Your task to perform on an android device: turn pop-ups off in chrome Image 0: 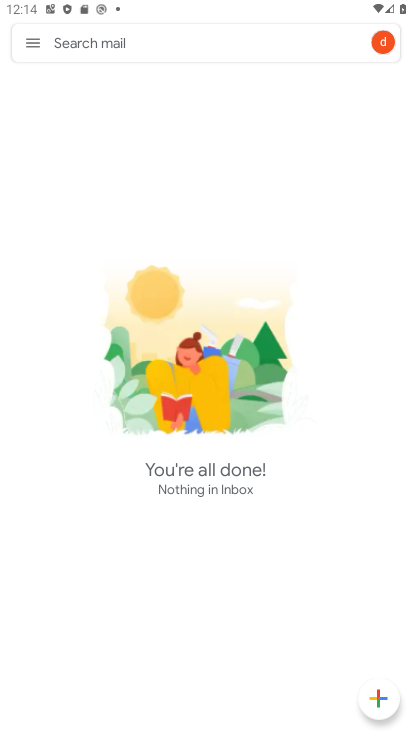
Step 0: press home button
Your task to perform on an android device: turn pop-ups off in chrome Image 1: 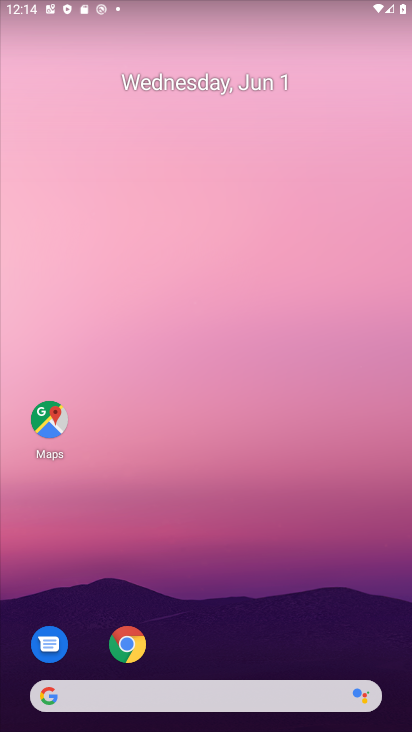
Step 1: drag from (360, 601) to (324, 117)
Your task to perform on an android device: turn pop-ups off in chrome Image 2: 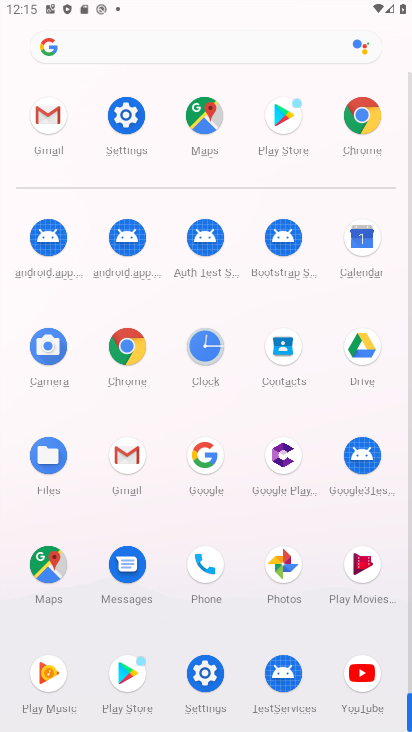
Step 2: click (117, 357)
Your task to perform on an android device: turn pop-ups off in chrome Image 3: 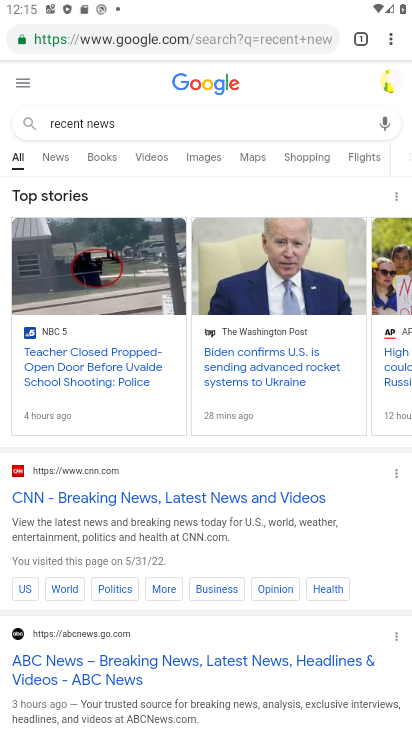
Step 3: drag from (389, 40) to (266, 429)
Your task to perform on an android device: turn pop-ups off in chrome Image 4: 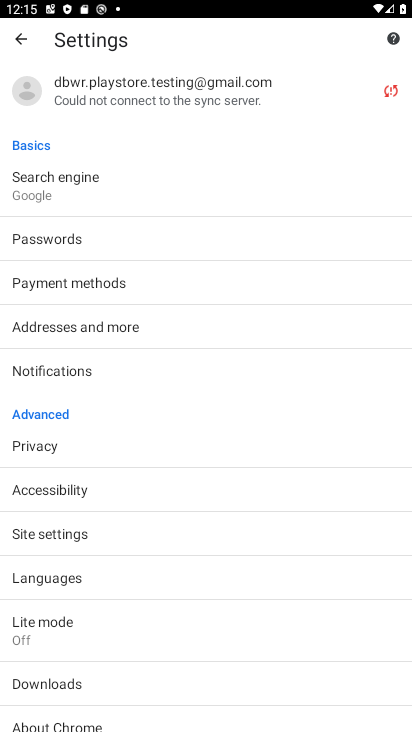
Step 4: click (128, 545)
Your task to perform on an android device: turn pop-ups off in chrome Image 5: 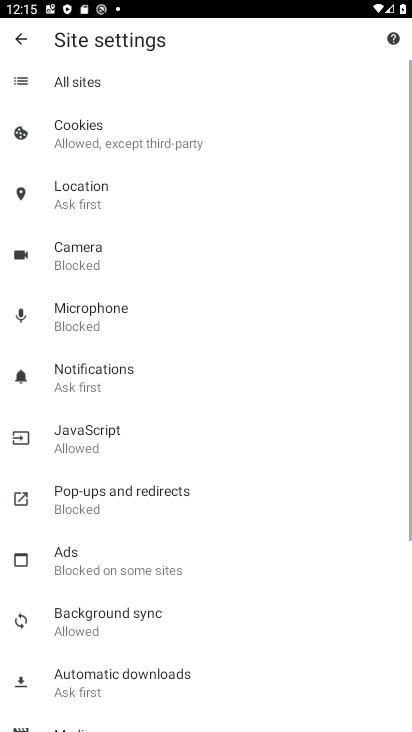
Step 5: drag from (244, 637) to (268, 191)
Your task to perform on an android device: turn pop-ups off in chrome Image 6: 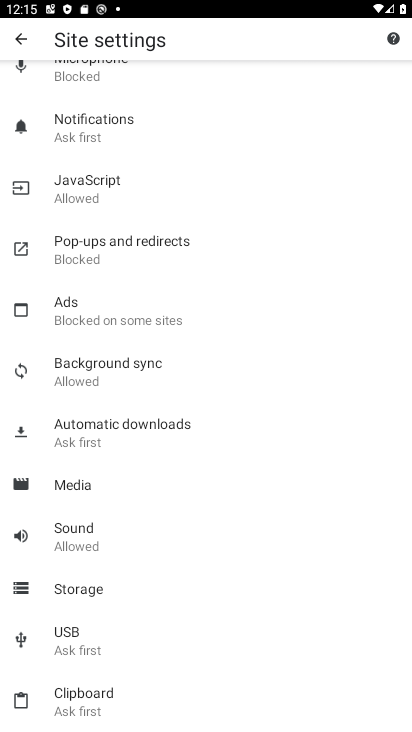
Step 6: click (185, 237)
Your task to perform on an android device: turn pop-ups off in chrome Image 7: 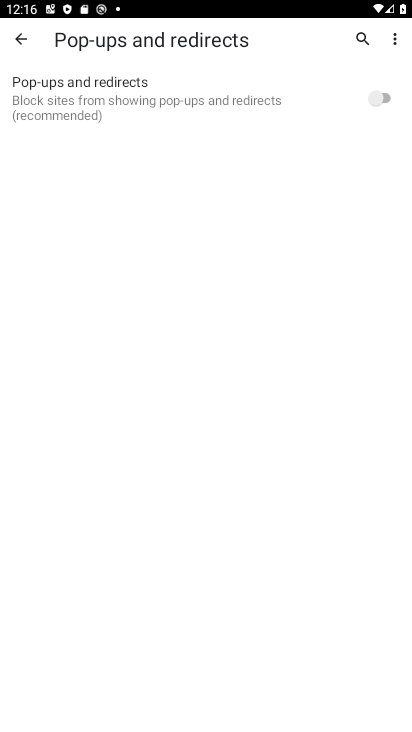
Step 7: task complete